Your task to perform on an android device: Open Maps and search for coffee Image 0: 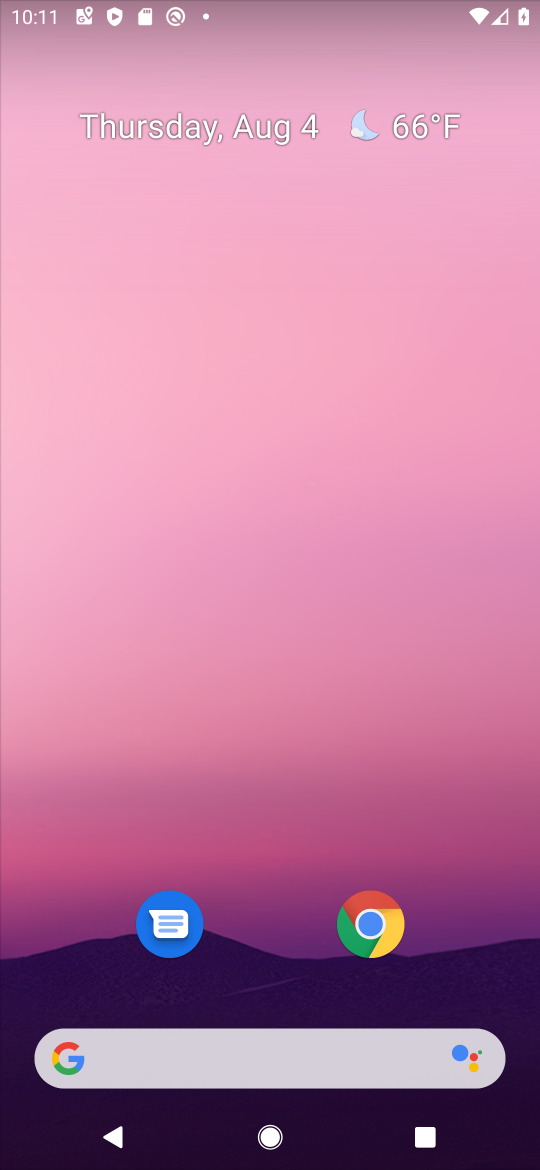
Step 0: click (256, 1064)
Your task to perform on an android device: Open Maps and search for coffee Image 1: 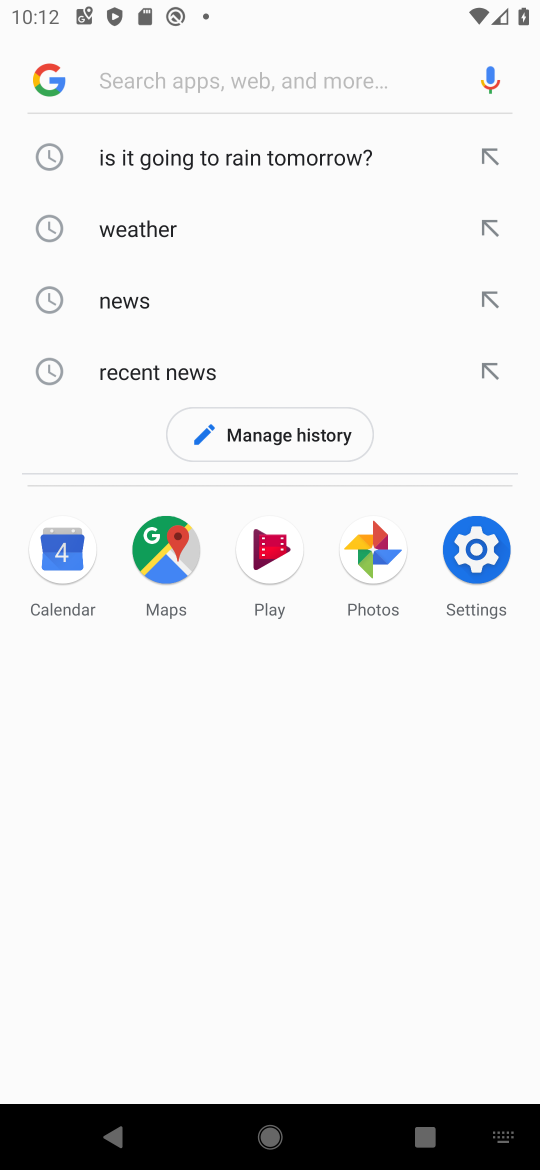
Step 1: type " coffee"
Your task to perform on an android device: Open Maps and search for coffee Image 2: 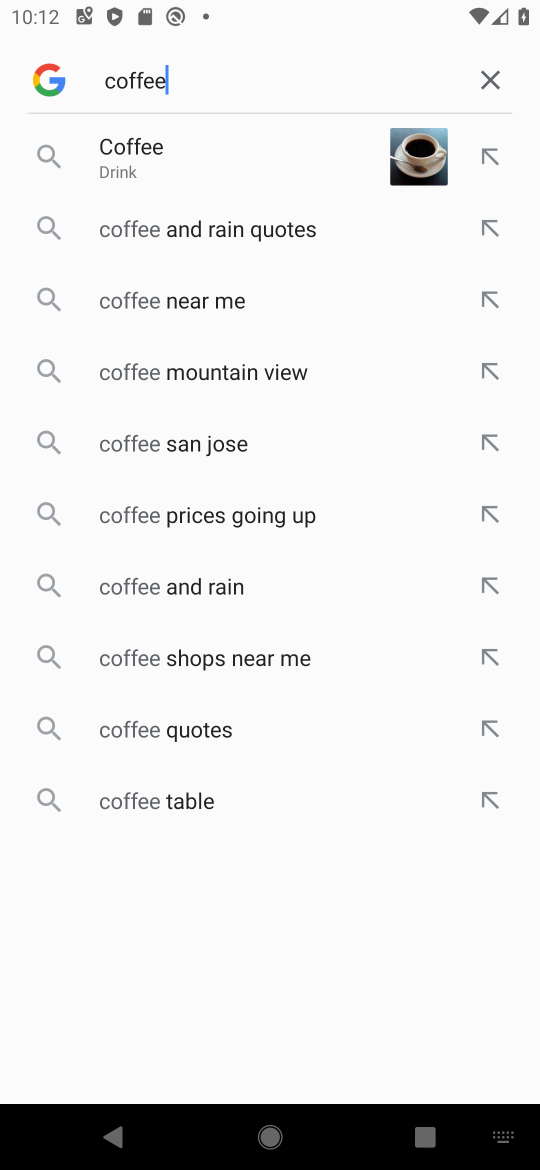
Step 2: press enter
Your task to perform on an android device: Open Maps and search for coffee Image 3: 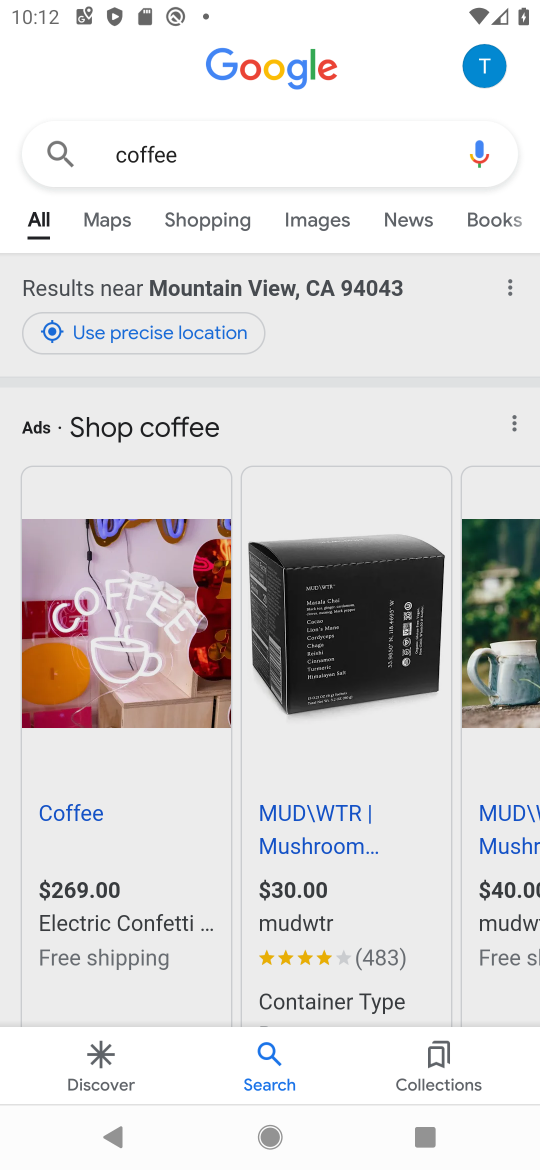
Step 3: task complete